Your task to perform on an android device: Open notification settings Image 0: 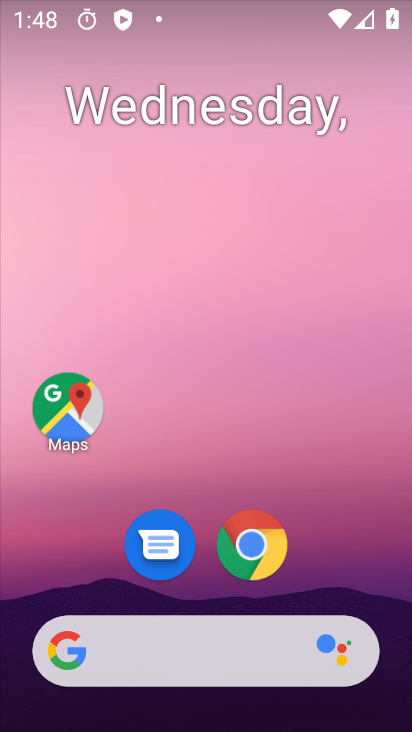
Step 0: drag from (97, 615) to (223, 136)
Your task to perform on an android device: Open notification settings Image 1: 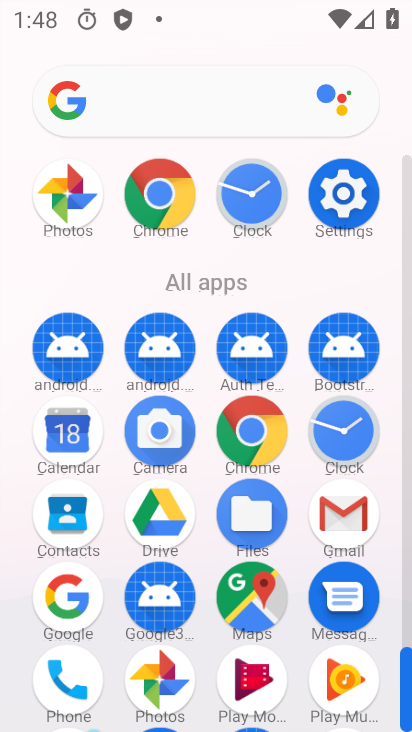
Step 1: drag from (176, 626) to (289, 294)
Your task to perform on an android device: Open notification settings Image 2: 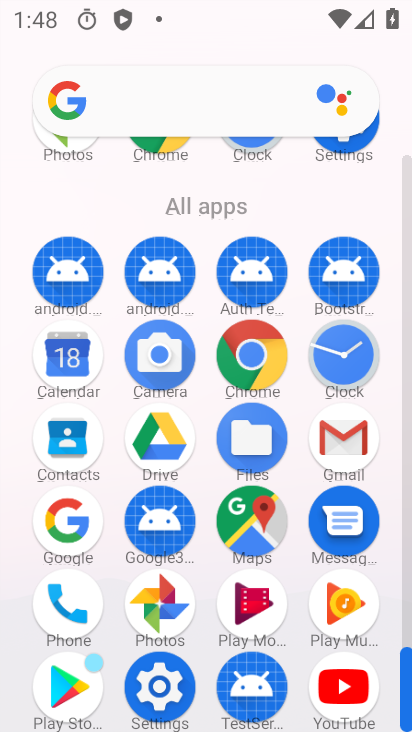
Step 2: click (159, 700)
Your task to perform on an android device: Open notification settings Image 3: 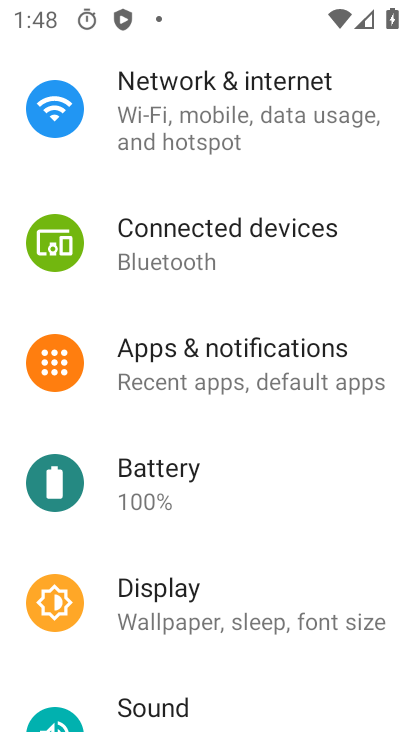
Step 3: click (282, 364)
Your task to perform on an android device: Open notification settings Image 4: 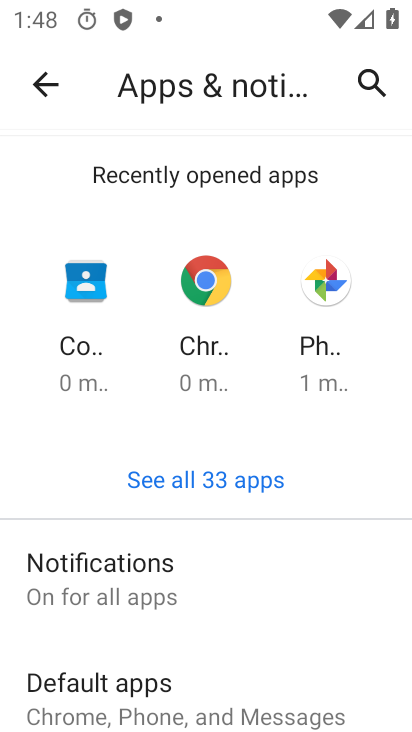
Step 4: click (197, 604)
Your task to perform on an android device: Open notification settings Image 5: 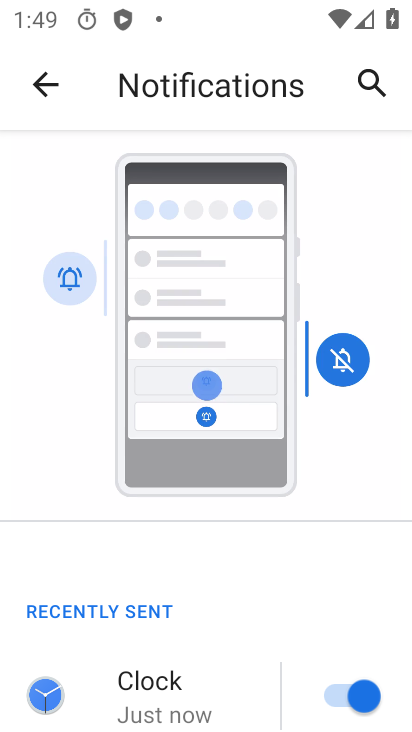
Step 5: task complete